Your task to perform on an android device: Do I have any events this weekend? Image 0: 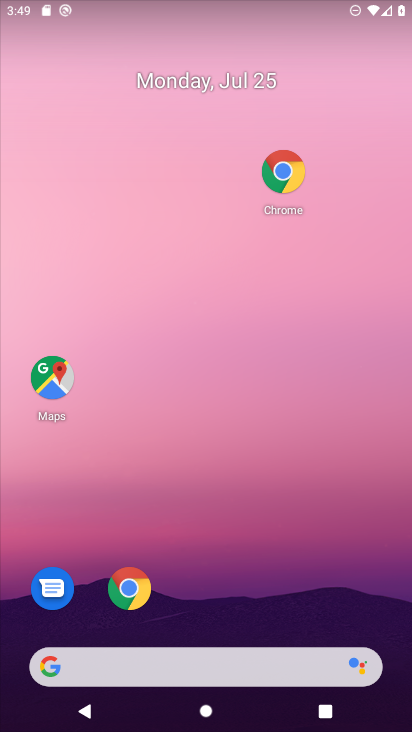
Step 0: drag from (294, 581) to (304, 23)
Your task to perform on an android device: Do I have any events this weekend? Image 1: 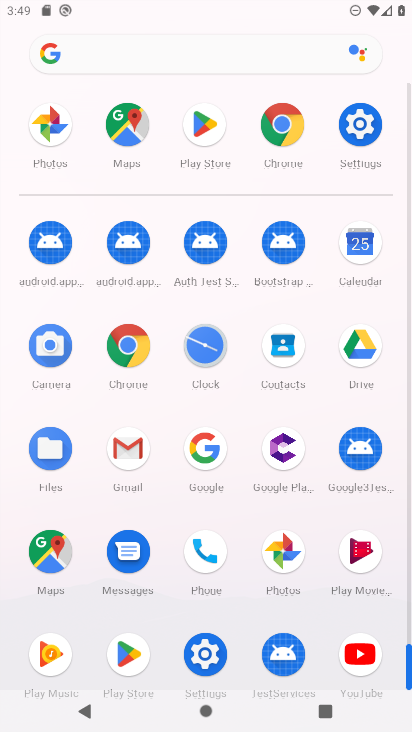
Step 1: click (354, 242)
Your task to perform on an android device: Do I have any events this weekend? Image 2: 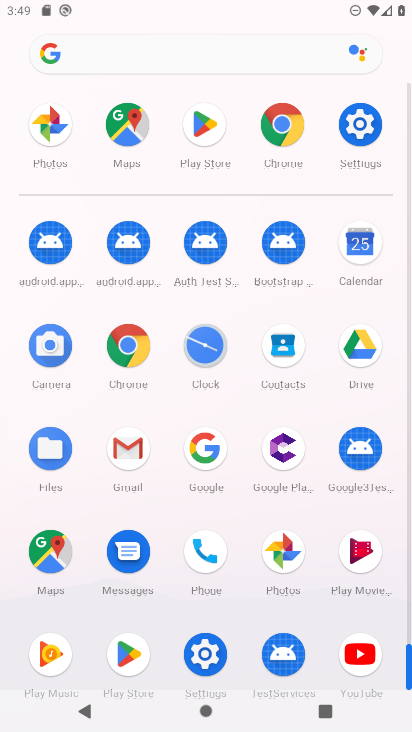
Step 2: click (356, 240)
Your task to perform on an android device: Do I have any events this weekend? Image 3: 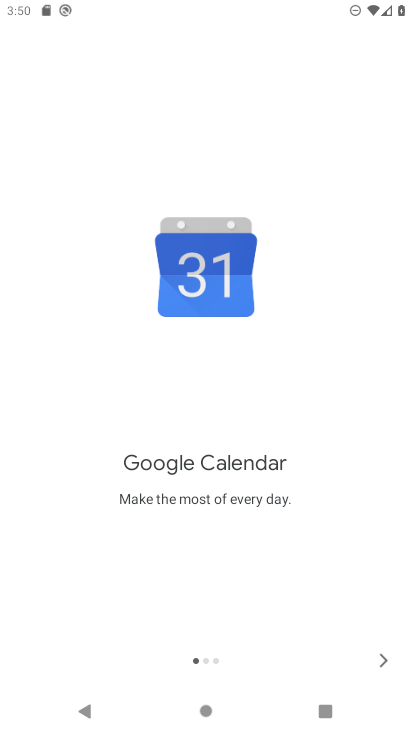
Step 3: click (392, 652)
Your task to perform on an android device: Do I have any events this weekend? Image 4: 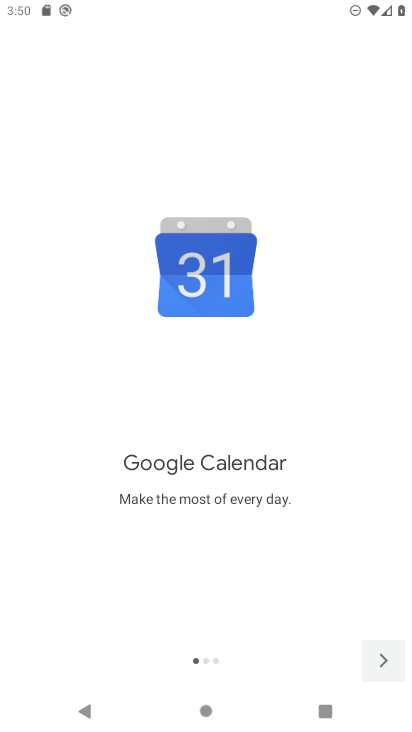
Step 4: click (392, 652)
Your task to perform on an android device: Do I have any events this weekend? Image 5: 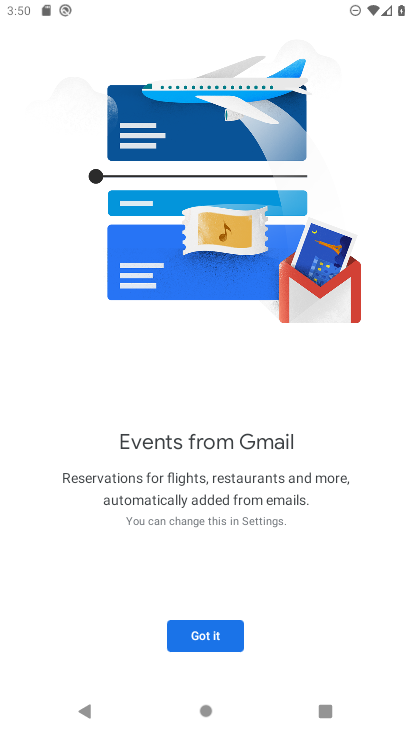
Step 5: click (194, 636)
Your task to perform on an android device: Do I have any events this weekend? Image 6: 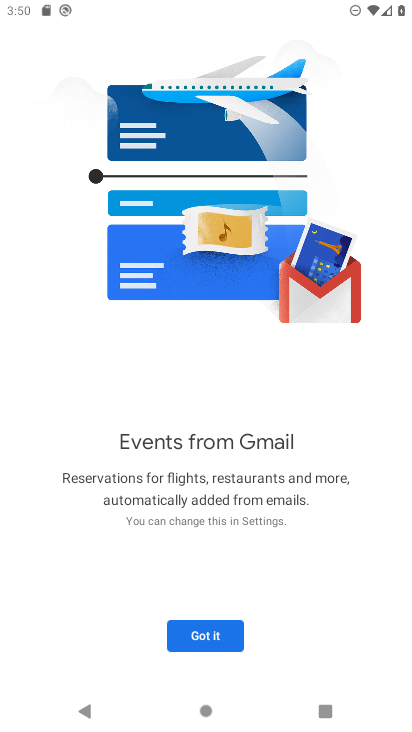
Step 6: click (195, 636)
Your task to perform on an android device: Do I have any events this weekend? Image 7: 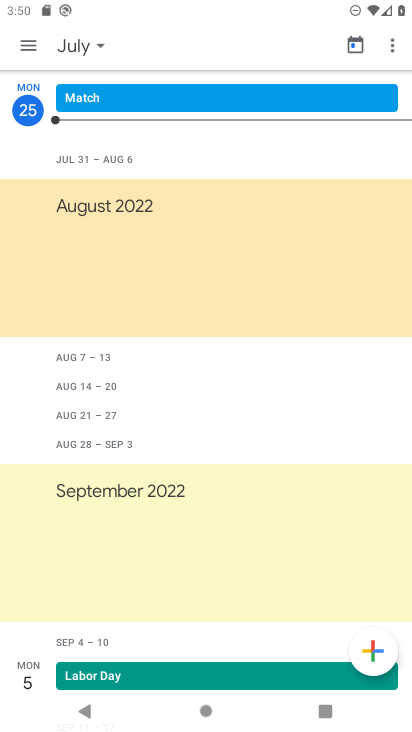
Step 7: click (104, 38)
Your task to perform on an android device: Do I have any events this weekend? Image 8: 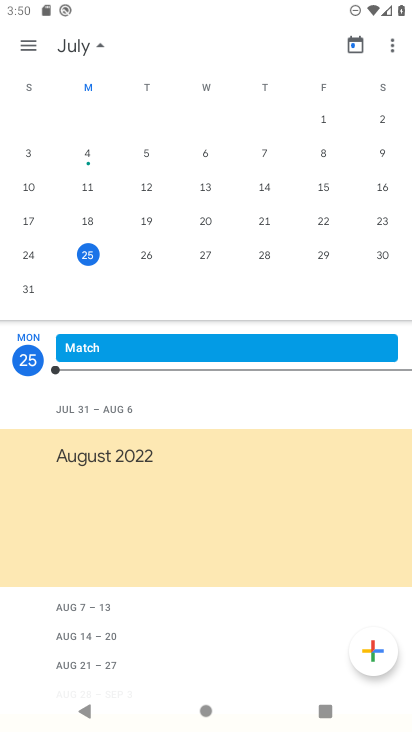
Step 8: click (315, 249)
Your task to perform on an android device: Do I have any events this weekend? Image 9: 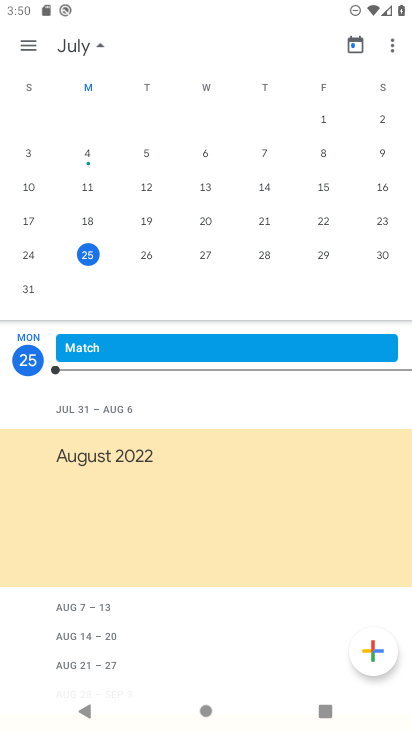
Step 9: click (316, 249)
Your task to perform on an android device: Do I have any events this weekend? Image 10: 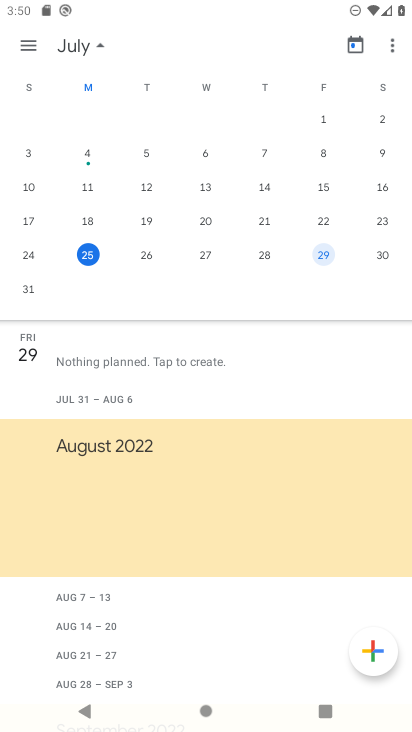
Step 10: click (388, 256)
Your task to perform on an android device: Do I have any events this weekend? Image 11: 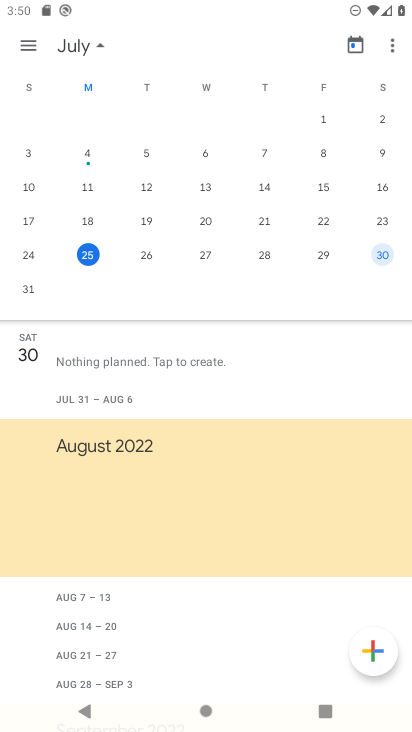
Step 11: task complete